Your task to perform on an android device: turn on the 24-hour format for clock Image 0: 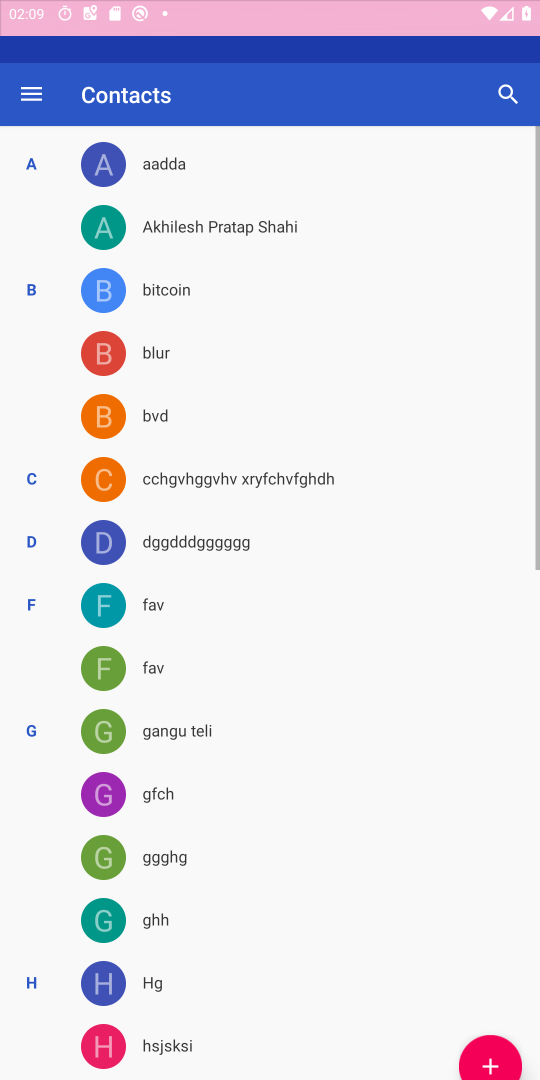
Step 0: press home button
Your task to perform on an android device: turn on the 24-hour format for clock Image 1: 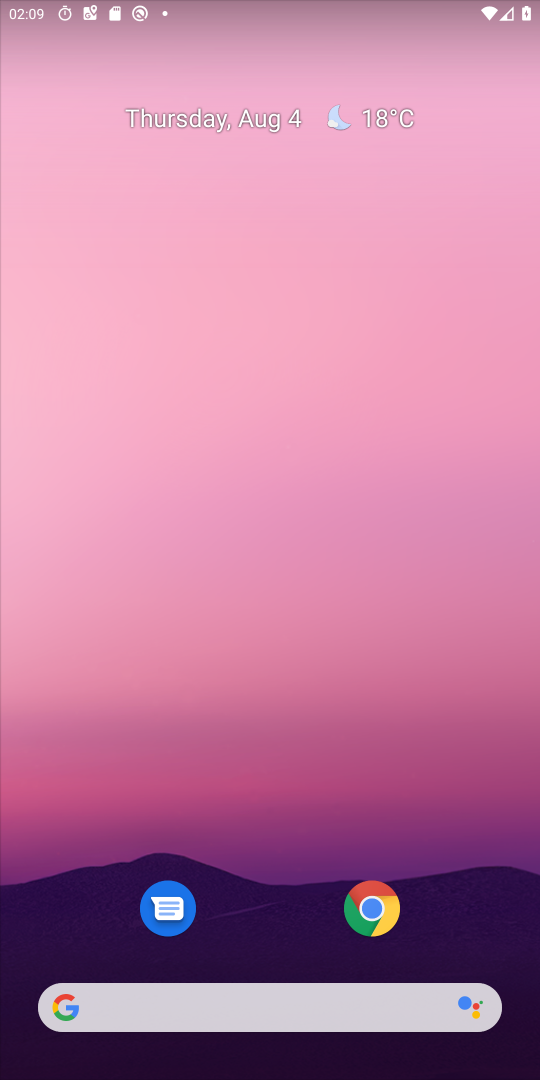
Step 1: drag from (376, 1036) to (271, 241)
Your task to perform on an android device: turn on the 24-hour format for clock Image 2: 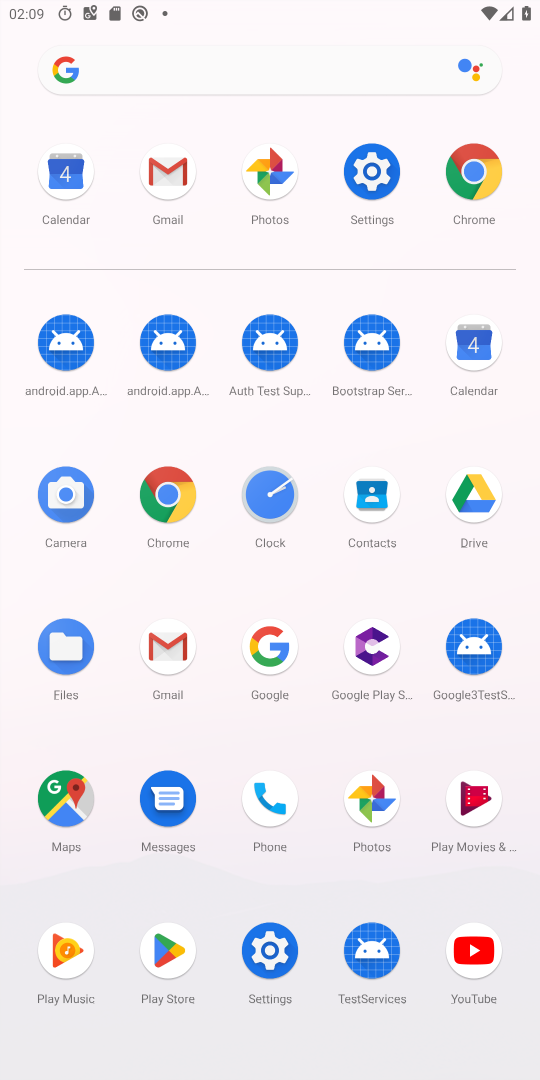
Step 2: click (266, 509)
Your task to perform on an android device: turn on the 24-hour format for clock Image 3: 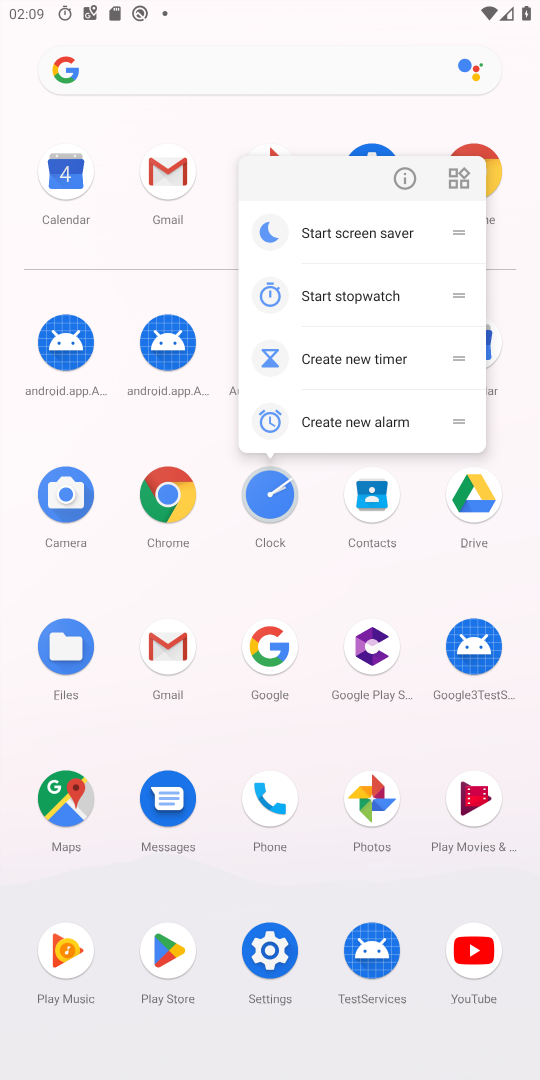
Step 3: click (261, 504)
Your task to perform on an android device: turn on the 24-hour format for clock Image 4: 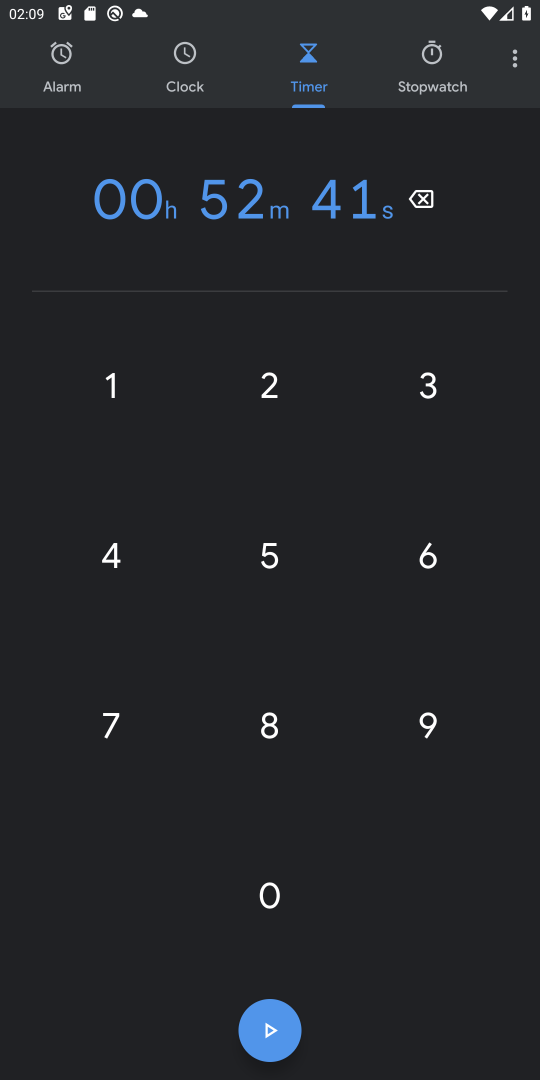
Step 4: click (503, 51)
Your task to perform on an android device: turn on the 24-hour format for clock Image 5: 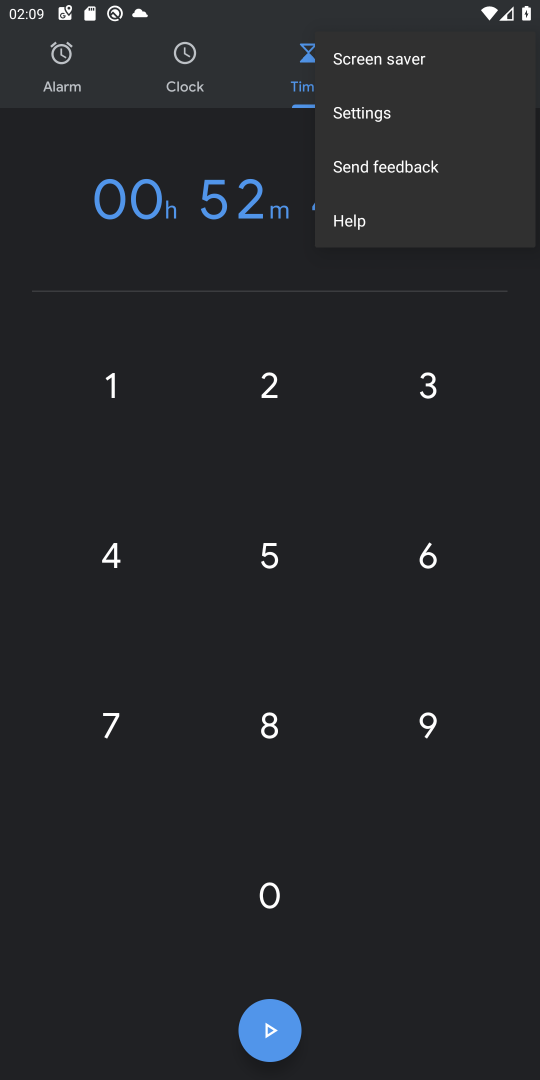
Step 5: click (361, 123)
Your task to perform on an android device: turn on the 24-hour format for clock Image 6: 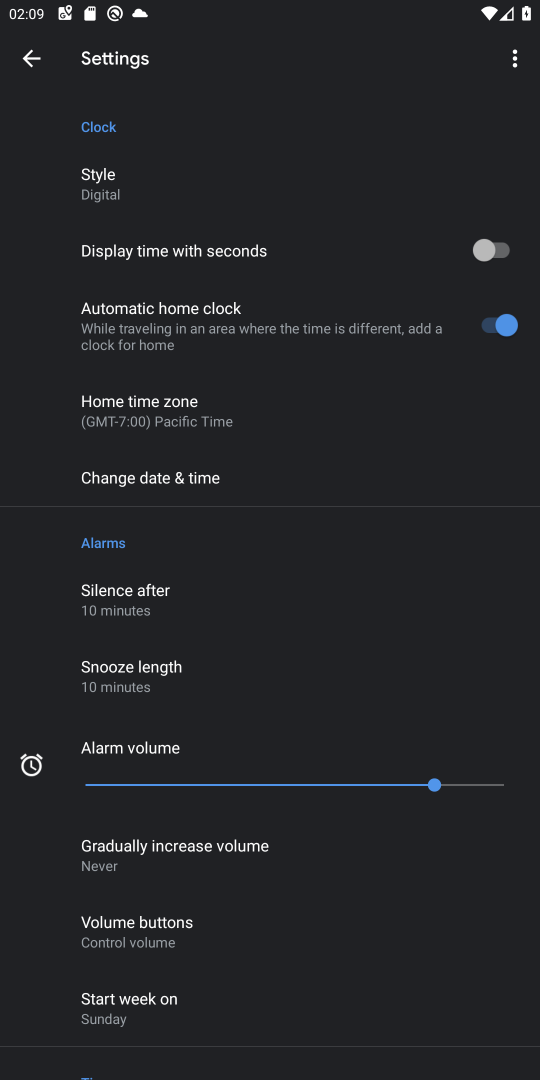
Step 6: click (188, 471)
Your task to perform on an android device: turn on the 24-hour format for clock Image 7: 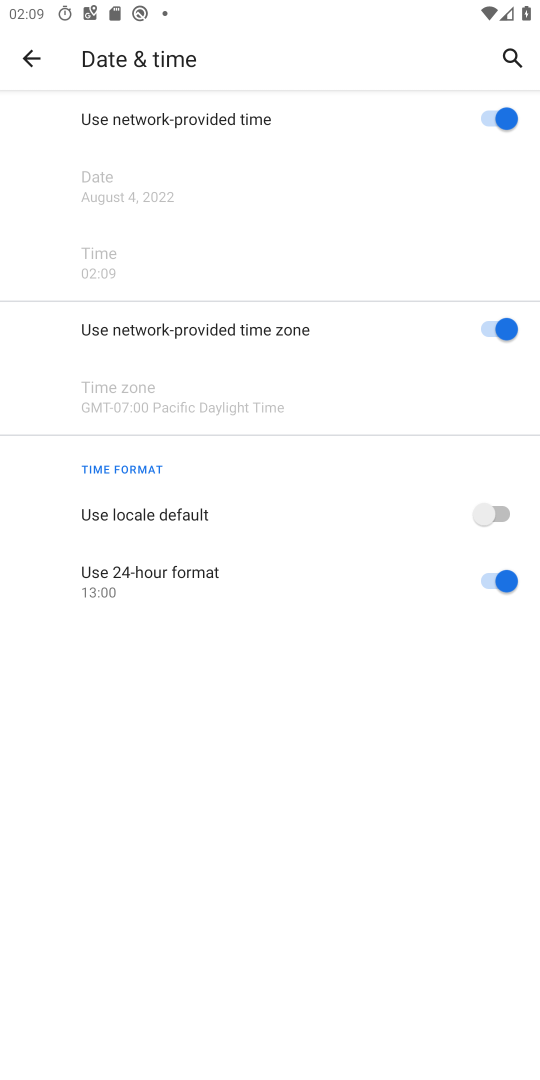
Step 7: click (400, 569)
Your task to perform on an android device: turn on the 24-hour format for clock Image 8: 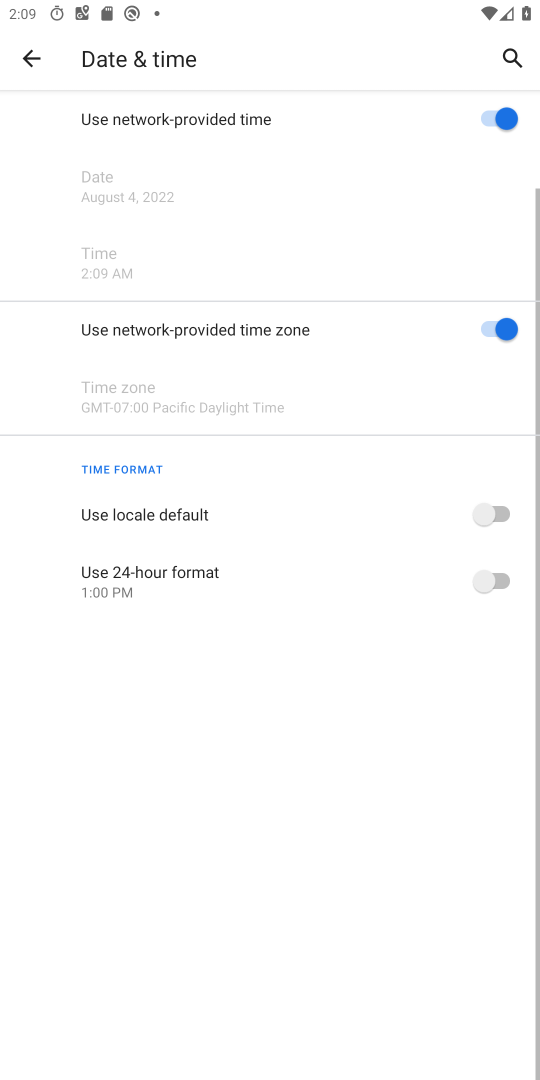
Step 8: click (400, 569)
Your task to perform on an android device: turn on the 24-hour format for clock Image 9: 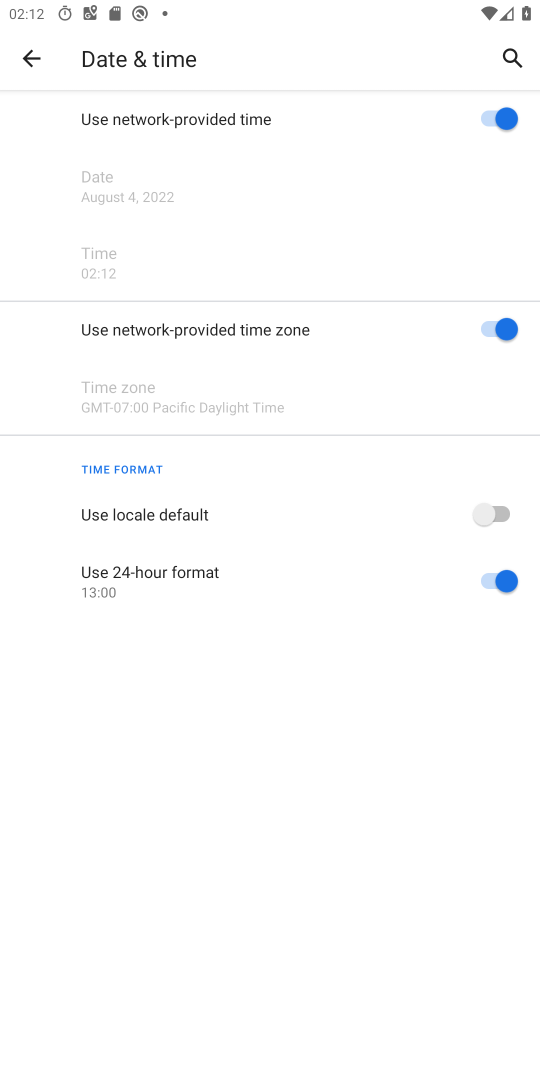
Step 9: task complete